Your task to perform on an android device: What's the weather going to be this weekend? Image 0: 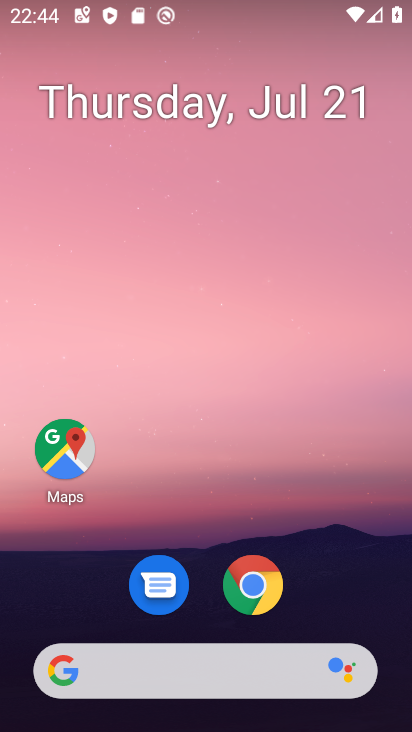
Step 0: click (175, 664)
Your task to perform on an android device: What's the weather going to be this weekend? Image 1: 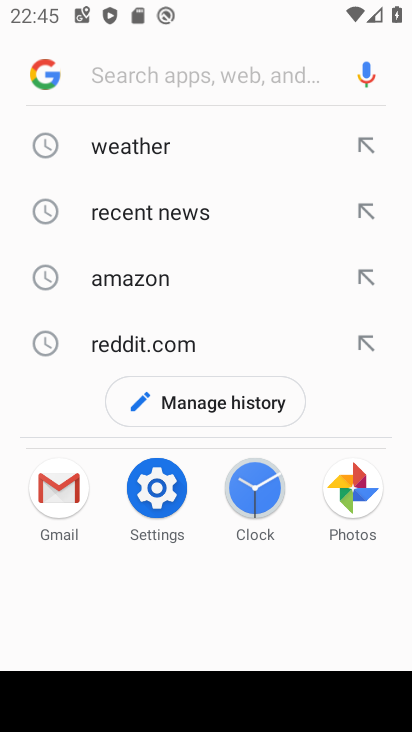
Step 1: click (131, 154)
Your task to perform on an android device: What's the weather going to be this weekend? Image 2: 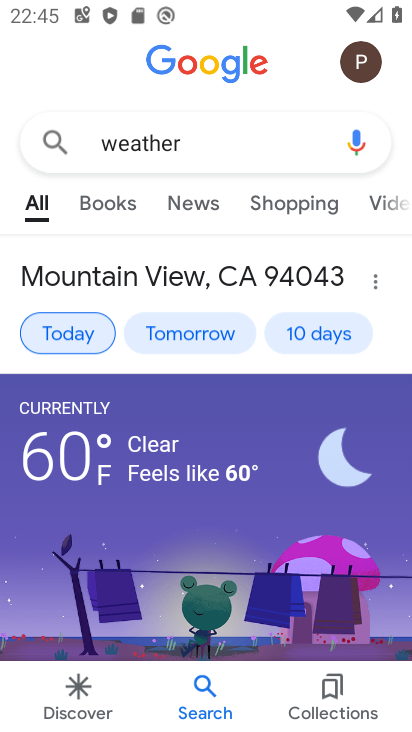
Step 2: click (329, 335)
Your task to perform on an android device: What's the weather going to be this weekend? Image 3: 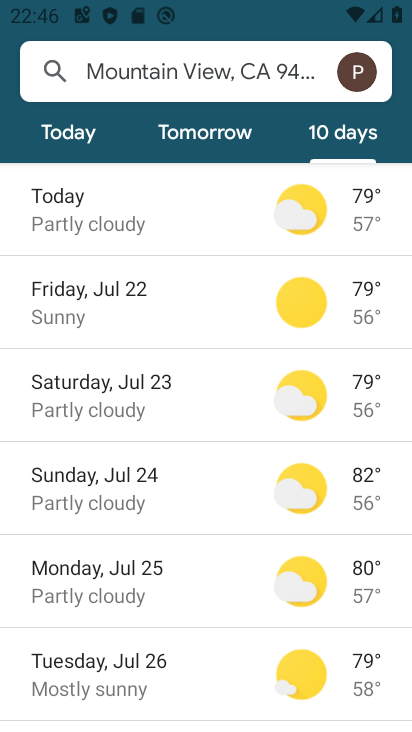
Step 3: click (124, 385)
Your task to perform on an android device: What's the weather going to be this weekend? Image 4: 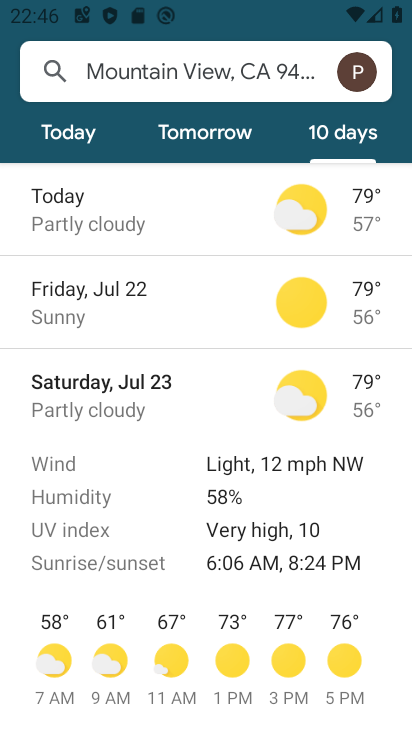
Step 4: task complete